Your task to perform on an android device: Open Wikipedia Image 0: 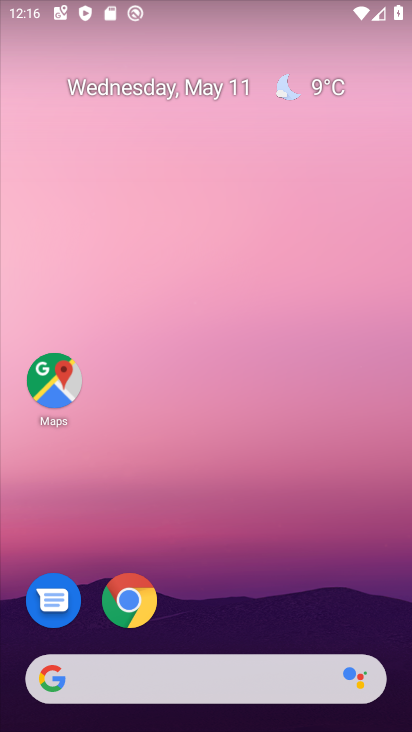
Step 0: click (128, 683)
Your task to perform on an android device: Open Wikipedia Image 1: 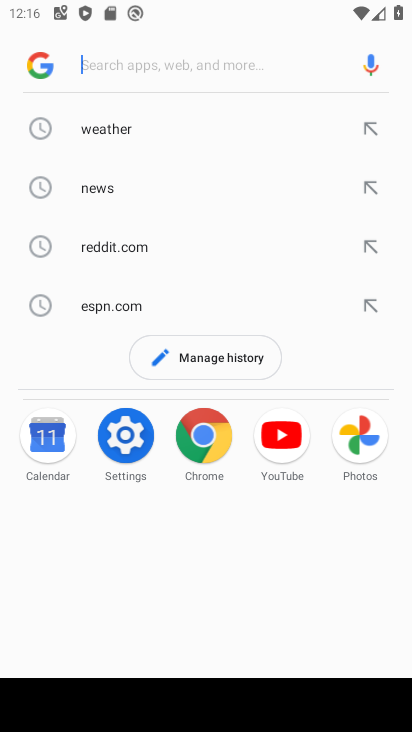
Step 1: type "wikipedia "
Your task to perform on an android device: Open Wikipedia Image 2: 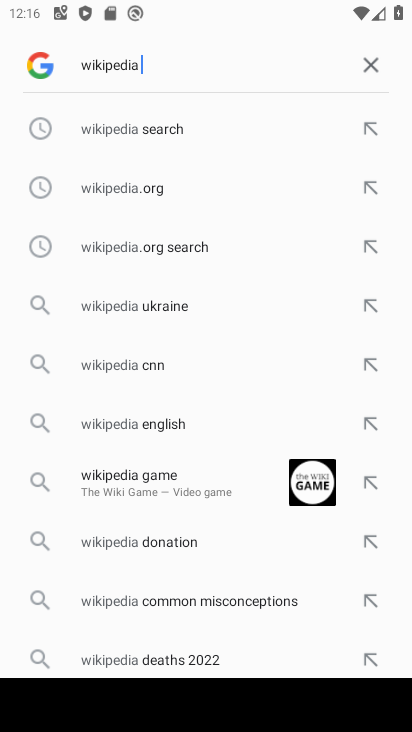
Step 2: click (239, 99)
Your task to perform on an android device: Open Wikipedia Image 3: 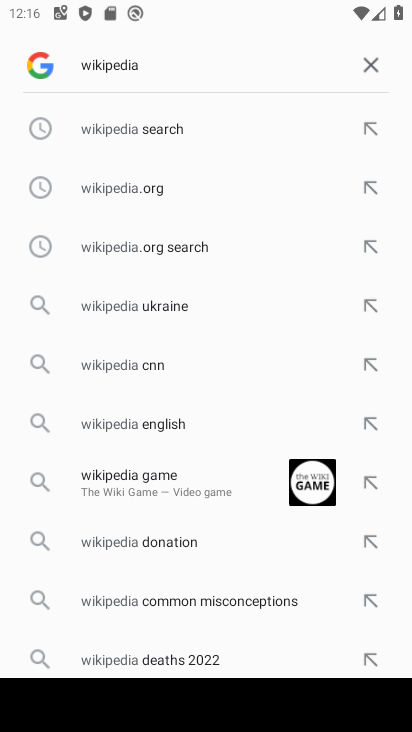
Step 3: click (263, 121)
Your task to perform on an android device: Open Wikipedia Image 4: 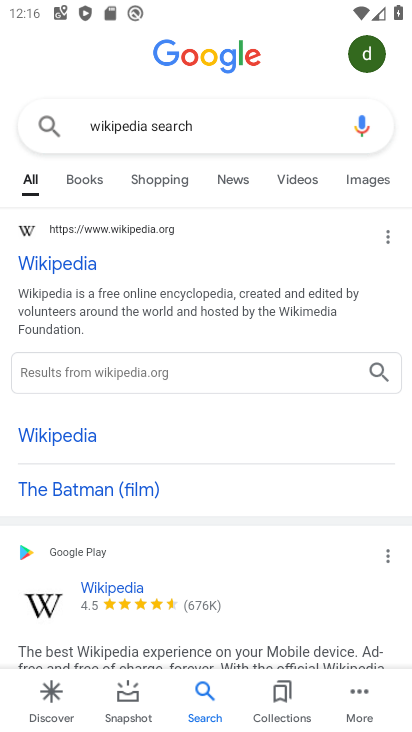
Step 4: click (132, 234)
Your task to perform on an android device: Open Wikipedia Image 5: 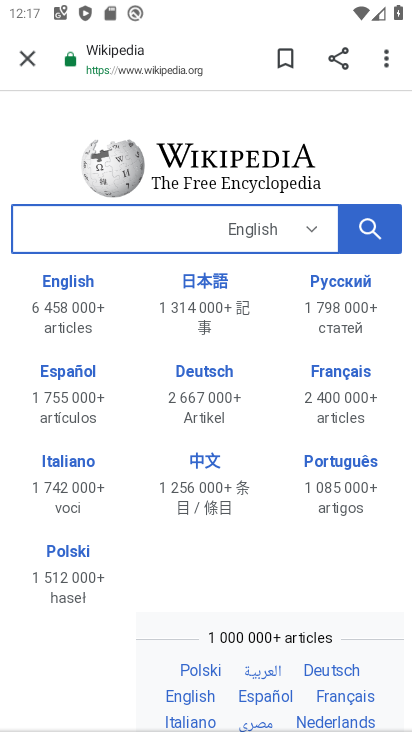
Step 5: task complete